Your task to perform on an android device: check out phone information Image 0: 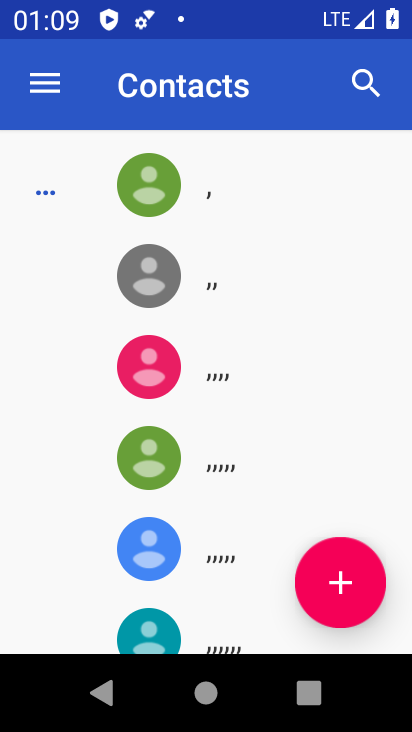
Step 0: press home button
Your task to perform on an android device: check out phone information Image 1: 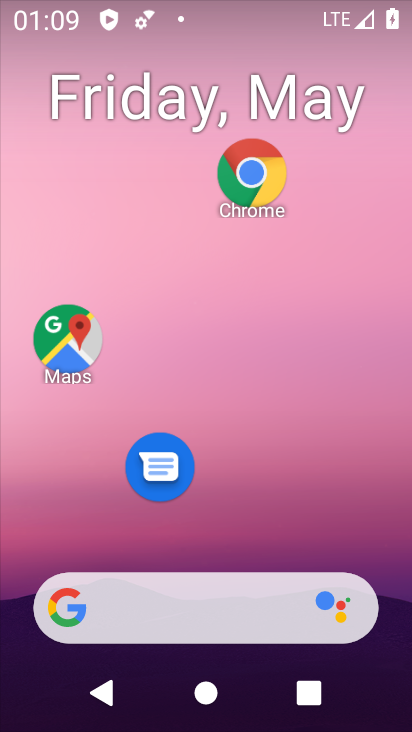
Step 1: drag from (249, 663) to (246, 237)
Your task to perform on an android device: check out phone information Image 2: 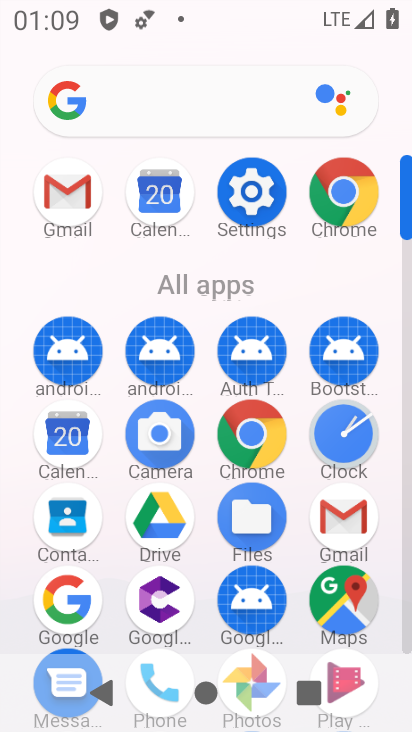
Step 2: click (253, 211)
Your task to perform on an android device: check out phone information Image 3: 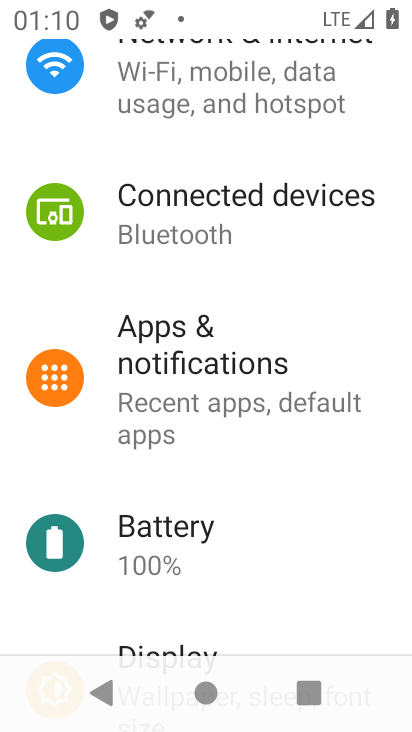
Step 3: drag from (258, 233) to (303, 434)
Your task to perform on an android device: check out phone information Image 4: 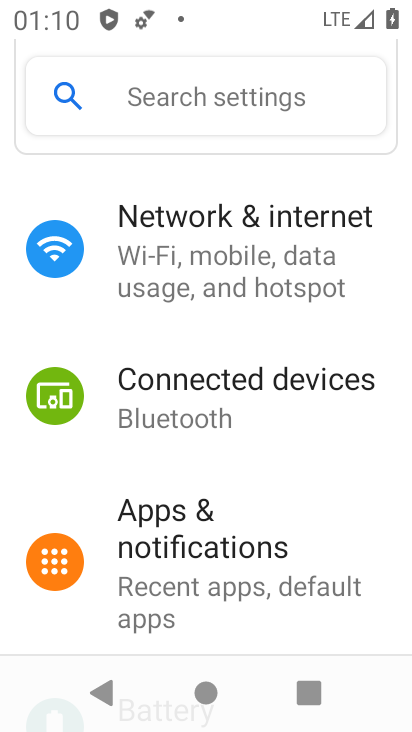
Step 4: click (194, 96)
Your task to perform on an android device: check out phone information Image 5: 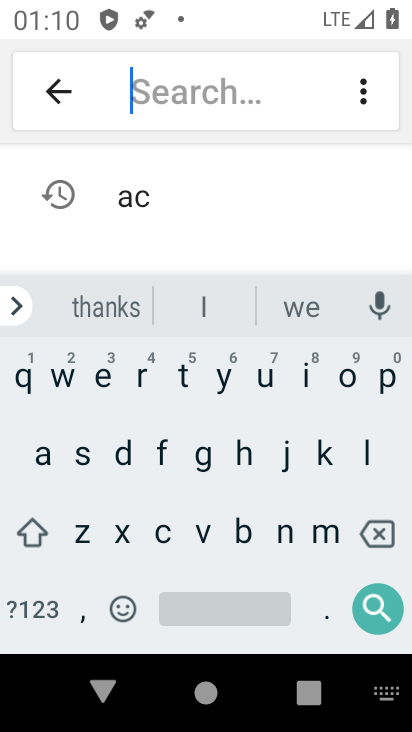
Step 5: click (31, 448)
Your task to perform on an android device: check out phone information Image 6: 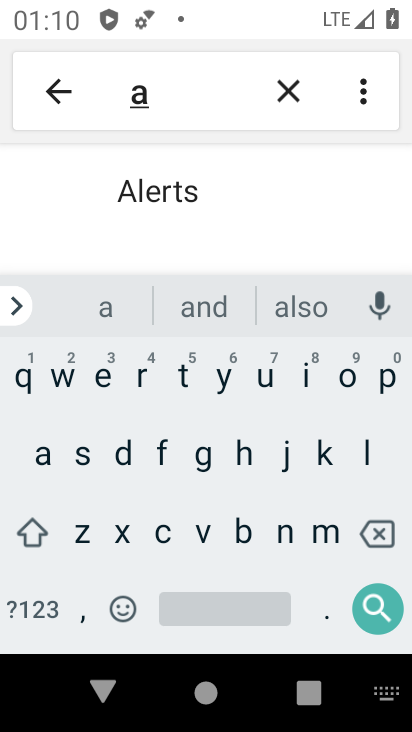
Step 6: click (241, 534)
Your task to perform on an android device: check out phone information Image 7: 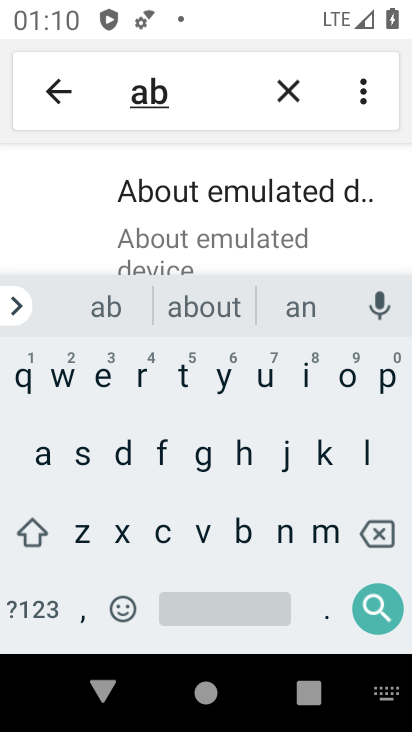
Step 7: click (240, 219)
Your task to perform on an android device: check out phone information Image 8: 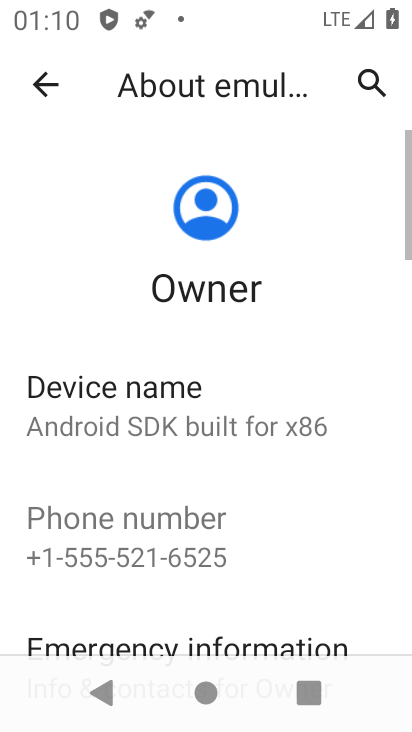
Step 8: task complete